Your task to perform on an android device: turn vacation reply on in the gmail app Image 0: 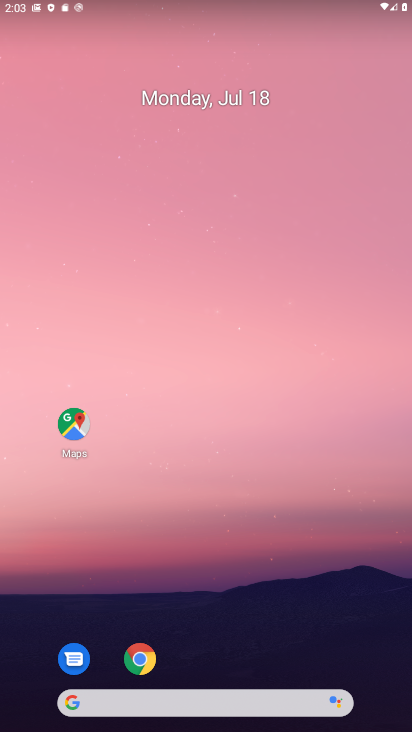
Step 0: drag from (200, 707) to (199, 139)
Your task to perform on an android device: turn vacation reply on in the gmail app Image 1: 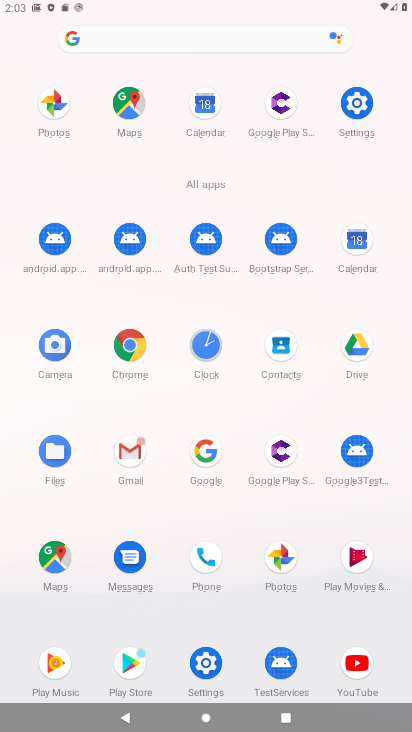
Step 1: click (125, 456)
Your task to perform on an android device: turn vacation reply on in the gmail app Image 2: 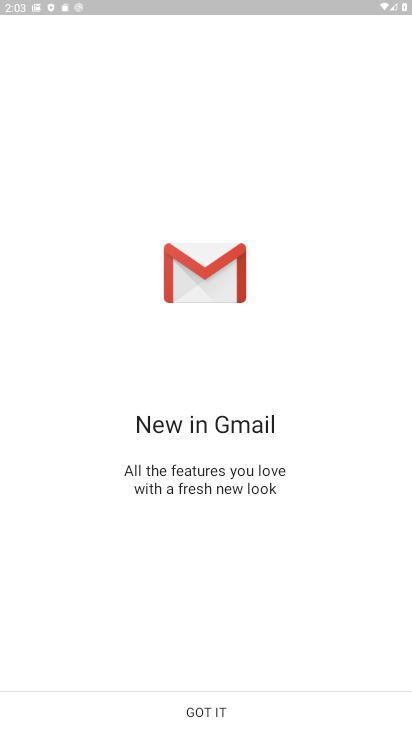
Step 2: click (187, 696)
Your task to perform on an android device: turn vacation reply on in the gmail app Image 3: 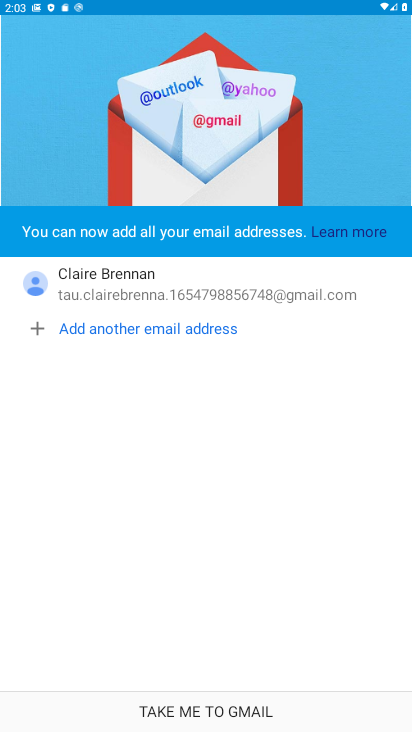
Step 3: click (180, 702)
Your task to perform on an android device: turn vacation reply on in the gmail app Image 4: 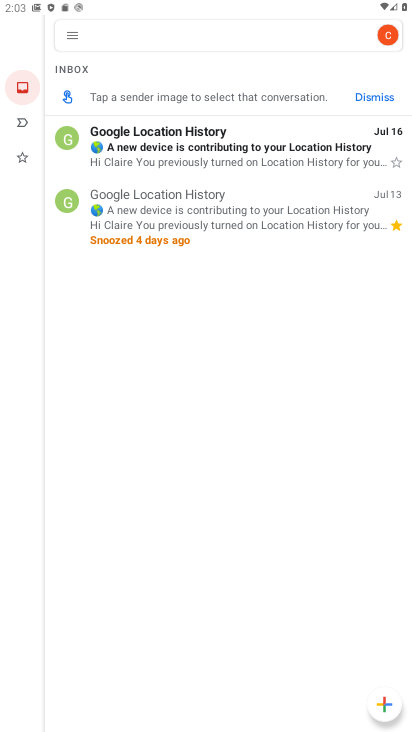
Step 4: click (68, 32)
Your task to perform on an android device: turn vacation reply on in the gmail app Image 5: 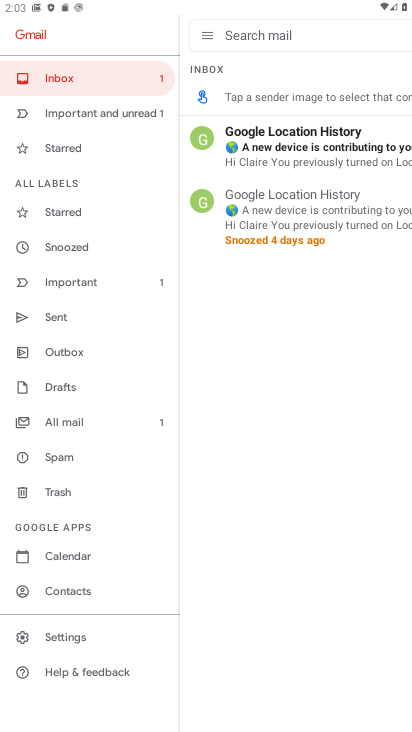
Step 5: click (85, 634)
Your task to perform on an android device: turn vacation reply on in the gmail app Image 6: 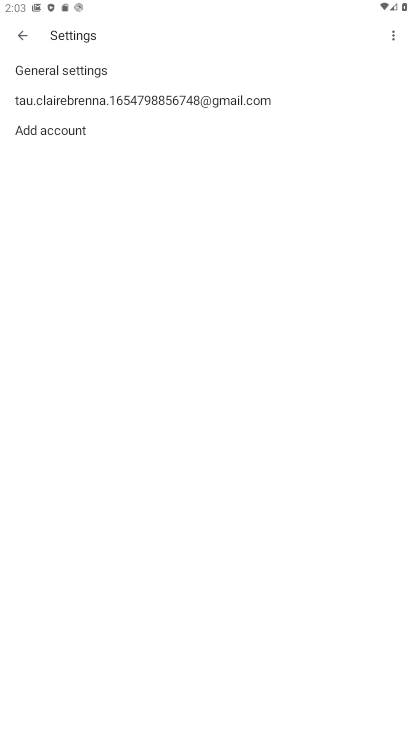
Step 6: click (111, 95)
Your task to perform on an android device: turn vacation reply on in the gmail app Image 7: 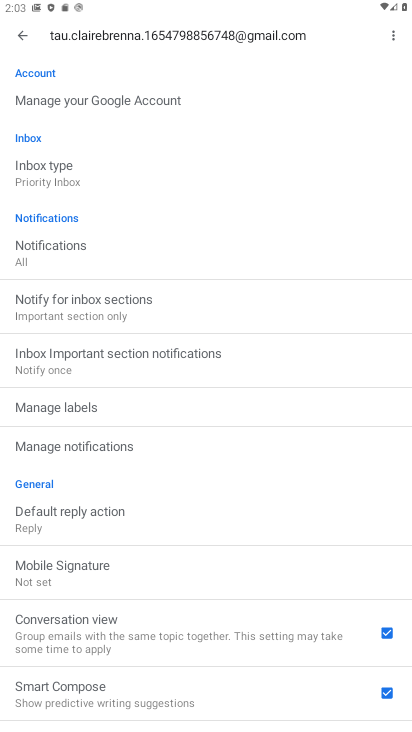
Step 7: drag from (125, 659) to (111, 142)
Your task to perform on an android device: turn vacation reply on in the gmail app Image 8: 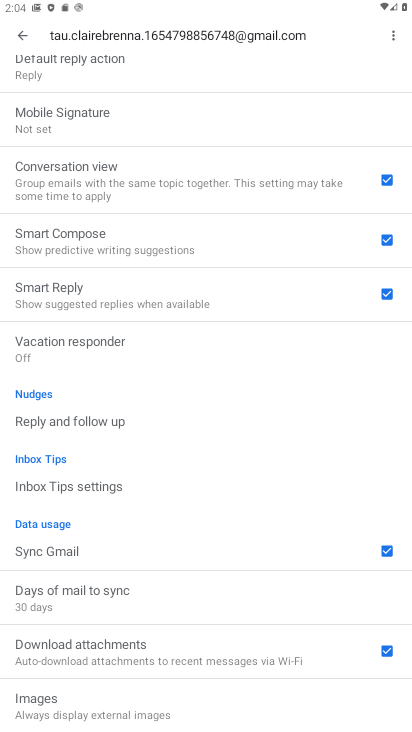
Step 8: drag from (190, 653) to (179, 201)
Your task to perform on an android device: turn vacation reply on in the gmail app Image 9: 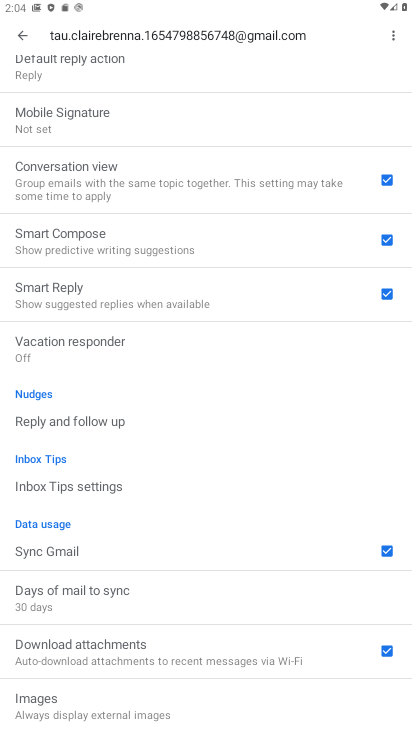
Step 9: click (126, 345)
Your task to perform on an android device: turn vacation reply on in the gmail app Image 10: 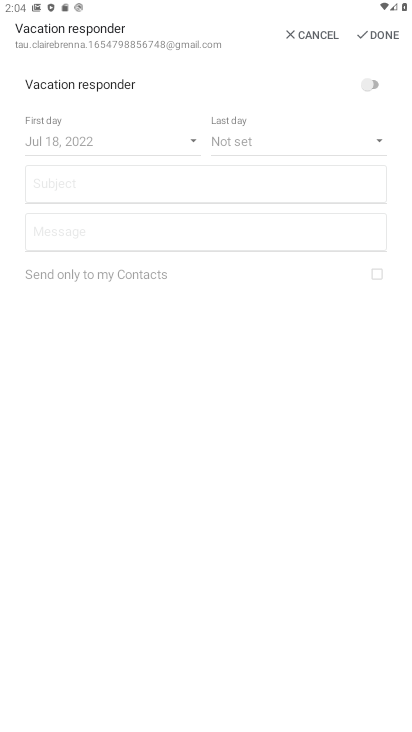
Step 10: click (367, 88)
Your task to perform on an android device: turn vacation reply on in the gmail app Image 11: 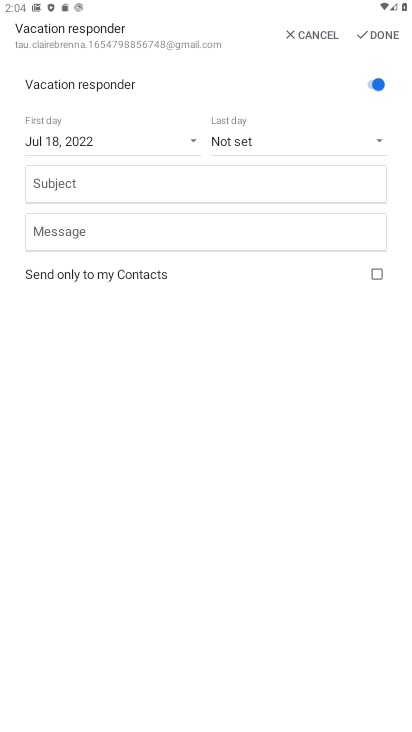
Step 11: click (365, 33)
Your task to perform on an android device: turn vacation reply on in the gmail app Image 12: 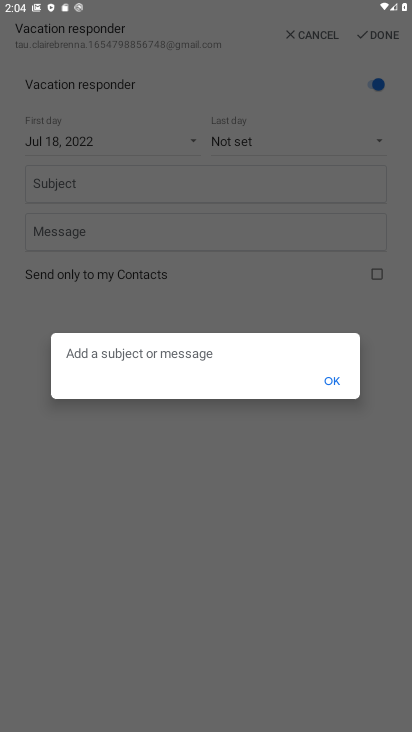
Step 12: task complete